Your task to perform on an android device: snooze an email in the gmail app Image 0: 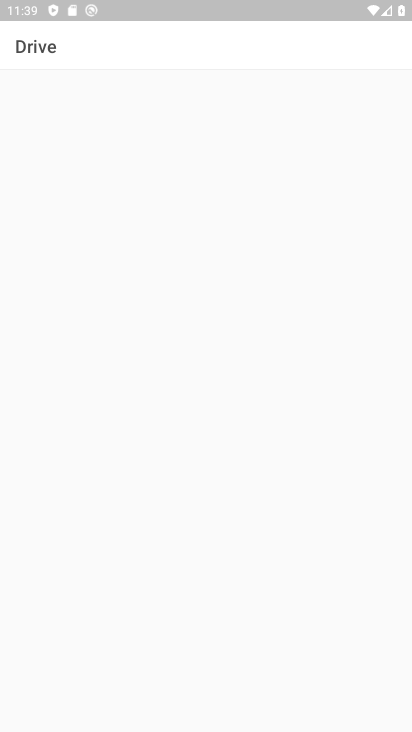
Step 0: drag from (188, 672) to (290, 197)
Your task to perform on an android device: snooze an email in the gmail app Image 1: 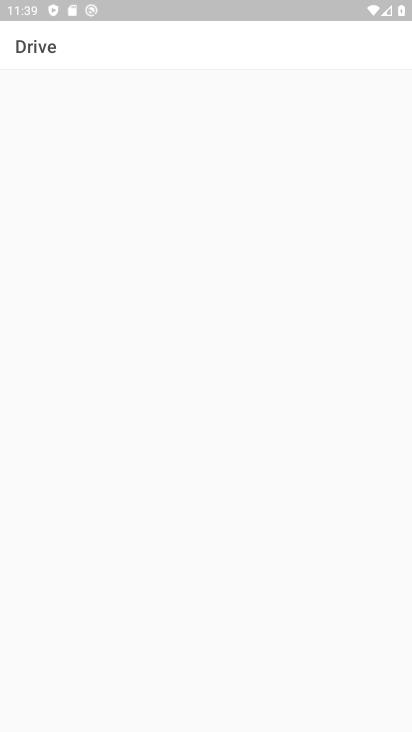
Step 1: press home button
Your task to perform on an android device: snooze an email in the gmail app Image 2: 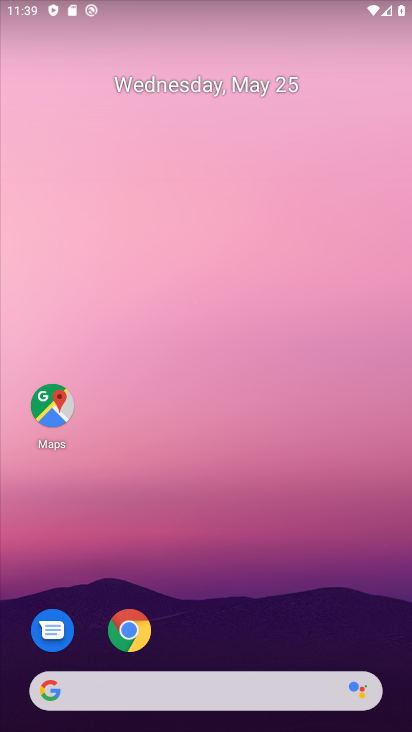
Step 2: drag from (175, 663) to (286, 210)
Your task to perform on an android device: snooze an email in the gmail app Image 3: 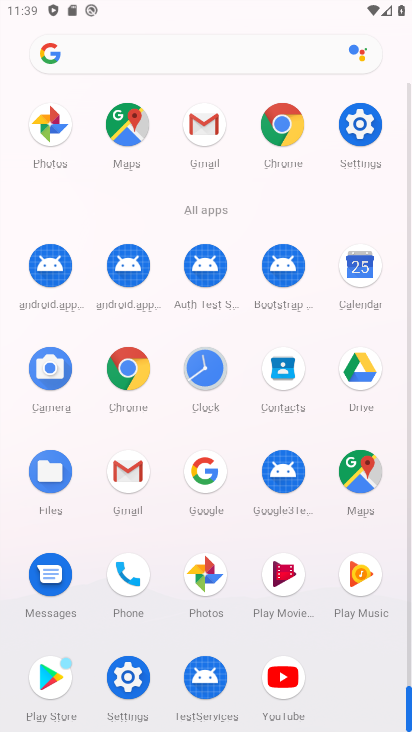
Step 3: click (118, 471)
Your task to perform on an android device: snooze an email in the gmail app Image 4: 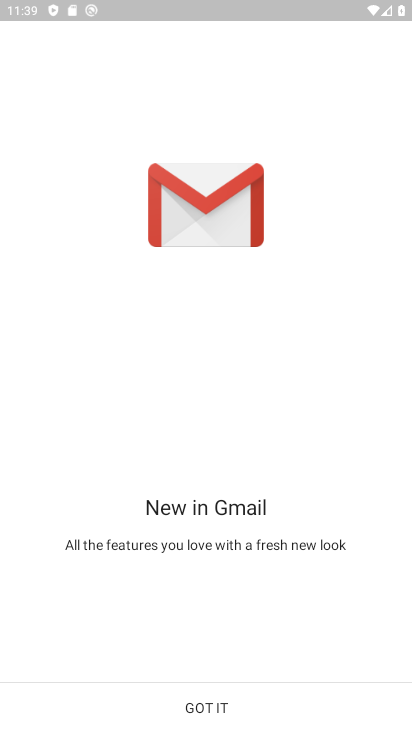
Step 4: click (267, 708)
Your task to perform on an android device: snooze an email in the gmail app Image 5: 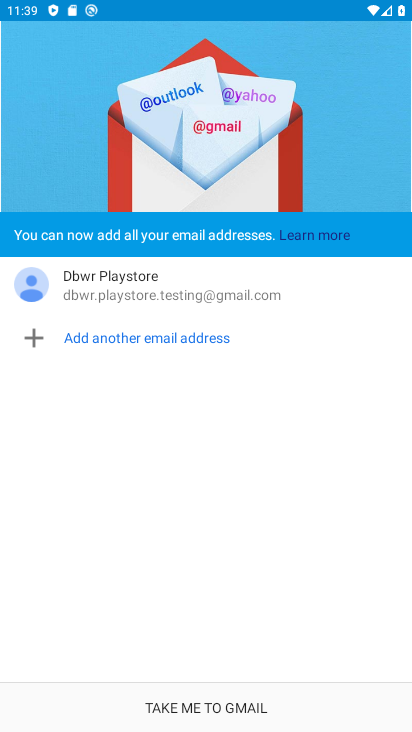
Step 5: click (194, 697)
Your task to perform on an android device: snooze an email in the gmail app Image 6: 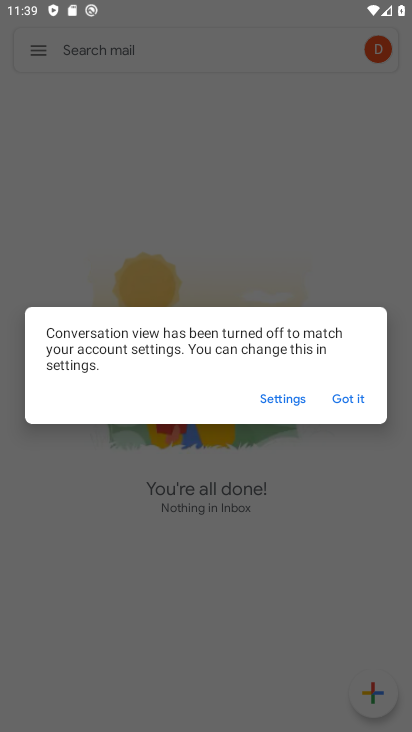
Step 6: click (329, 402)
Your task to perform on an android device: snooze an email in the gmail app Image 7: 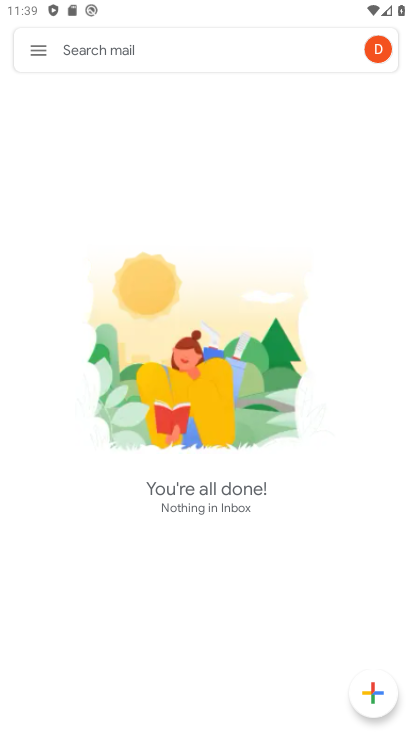
Step 7: click (40, 44)
Your task to perform on an android device: snooze an email in the gmail app Image 8: 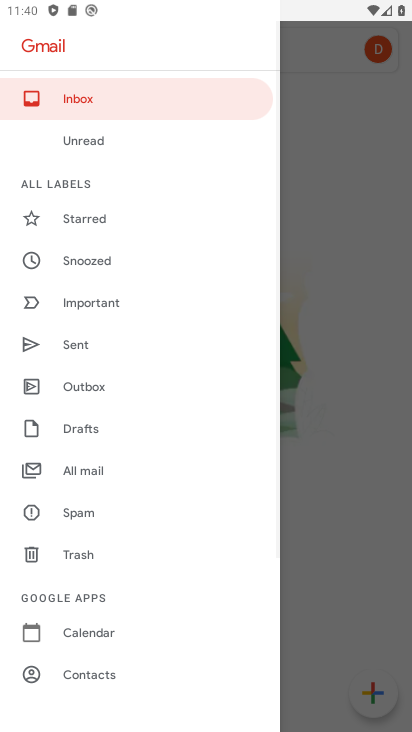
Step 8: click (127, 461)
Your task to perform on an android device: snooze an email in the gmail app Image 9: 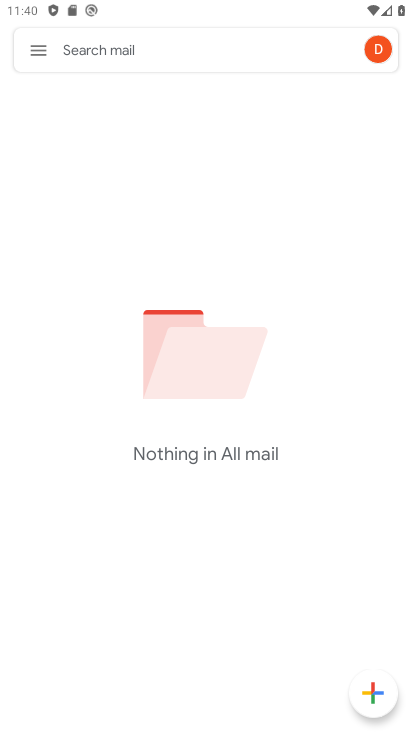
Step 9: task complete